Your task to perform on an android device: open device folders in google photos Image 0: 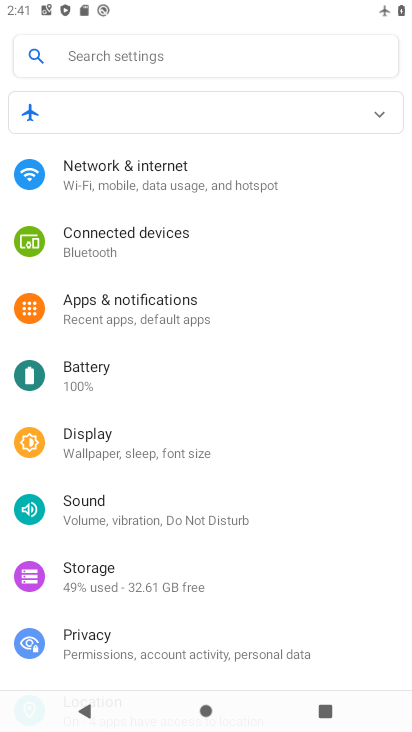
Step 0: press home button
Your task to perform on an android device: open device folders in google photos Image 1: 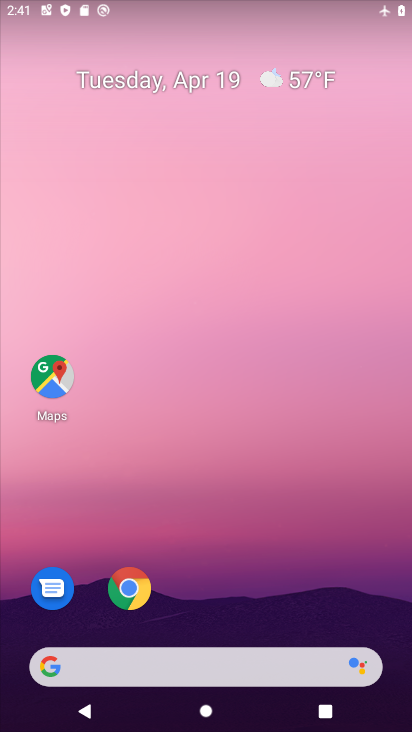
Step 1: drag from (188, 453) to (211, 171)
Your task to perform on an android device: open device folders in google photos Image 2: 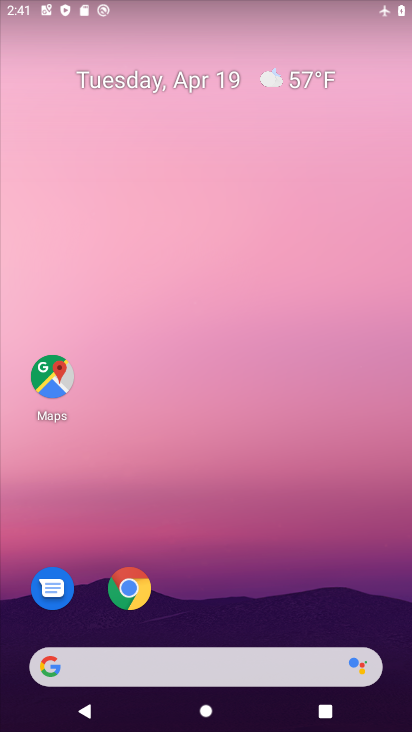
Step 2: drag from (367, 574) to (389, 65)
Your task to perform on an android device: open device folders in google photos Image 3: 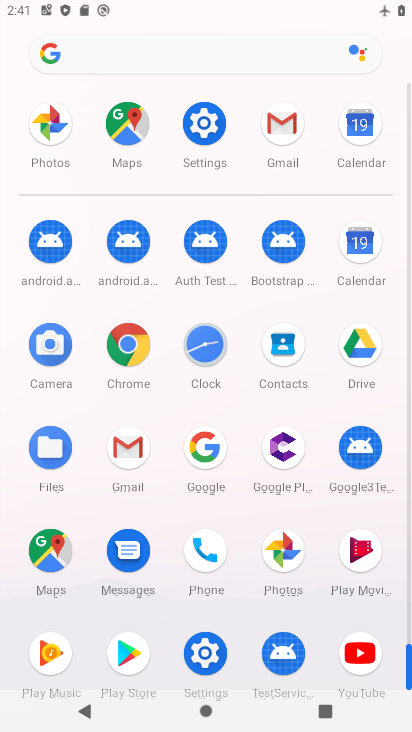
Step 3: click (54, 128)
Your task to perform on an android device: open device folders in google photos Image 4: 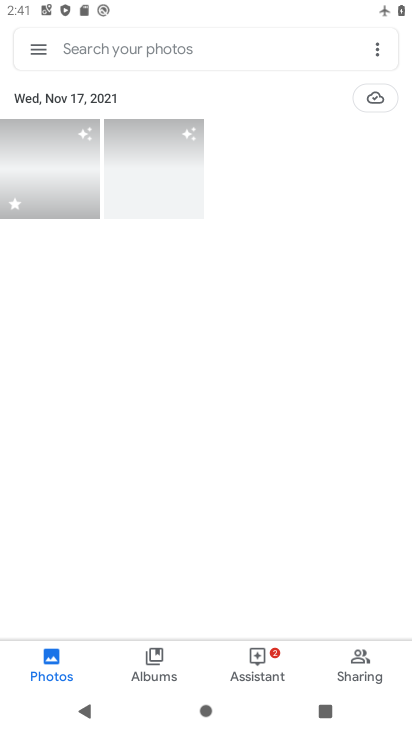
Step 4: click (40, 51)
Your task to perform on an android device: open device folders in google photos Image 5: 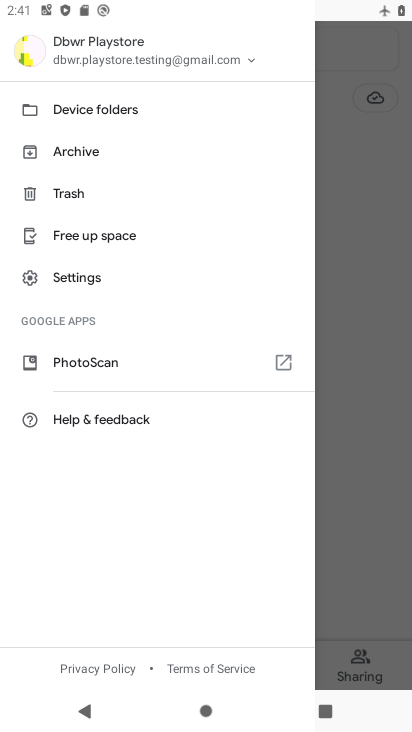
Step 5: click (69, 105)
Your task to perform on an android device: open device folders in google photos Image 6: 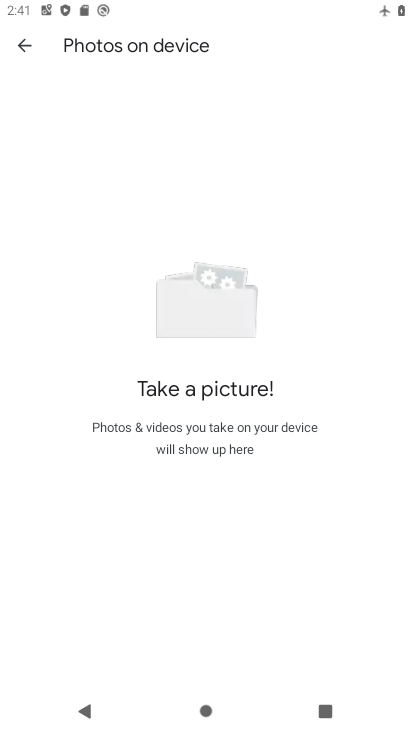
Step 6: task complete